Your task to perform on an android device: When is my next appointment? Image 0: 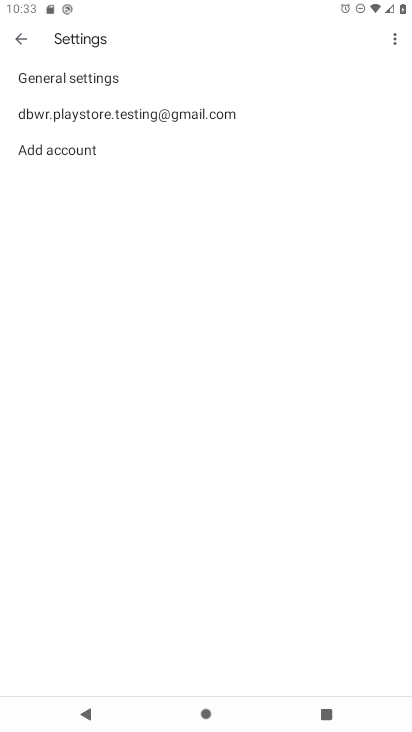
Step 0: press home button
Your task to perform on an android device: When is my next appointment? Image 1: 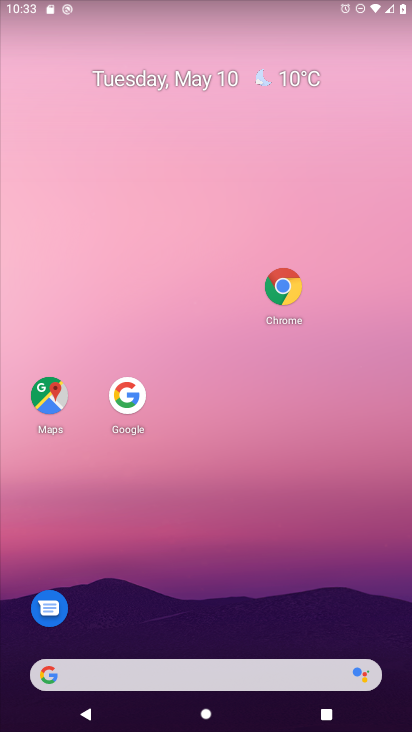
Step 1: drag from (183, 667) to (331, 81)
Your task to perform on an android device: When is my next appointment? Image 2: 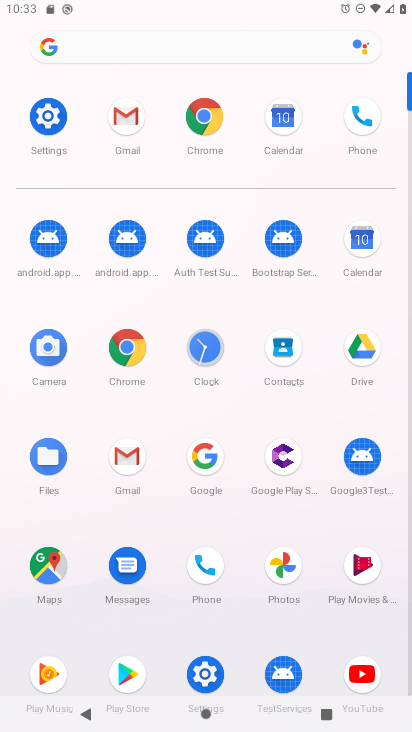
Step 2: click (359, 243)
Your task to perform on an android device: When is my next appointment? Image 3: 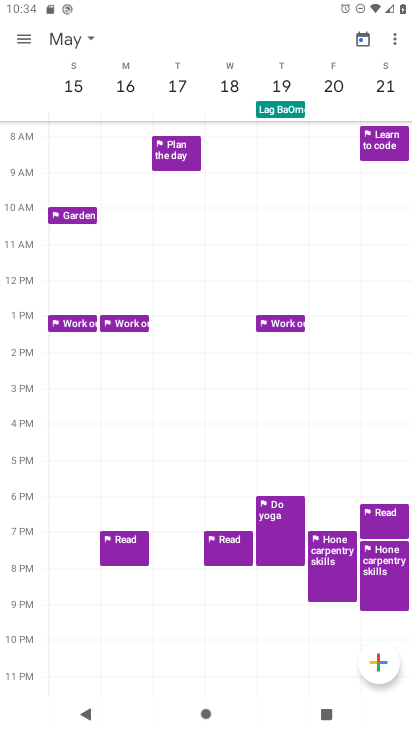
Step 3: click (57, 40)
Your task to perform on an android device: When is my next appointment? Image 4: 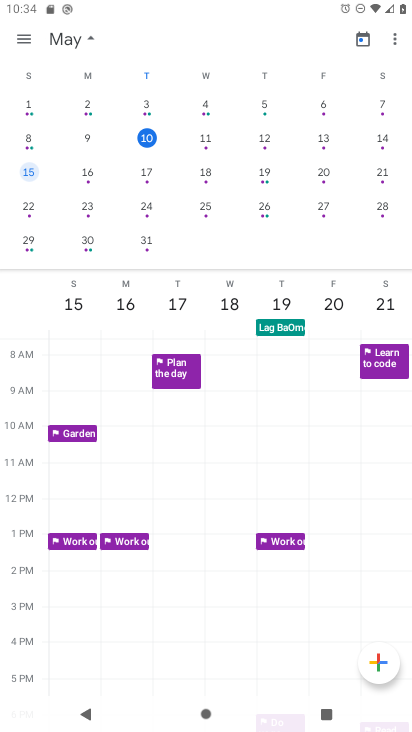
Step 4: click (153, 143)
Your task to perform on an android device: When is my next appointment? Image 5: 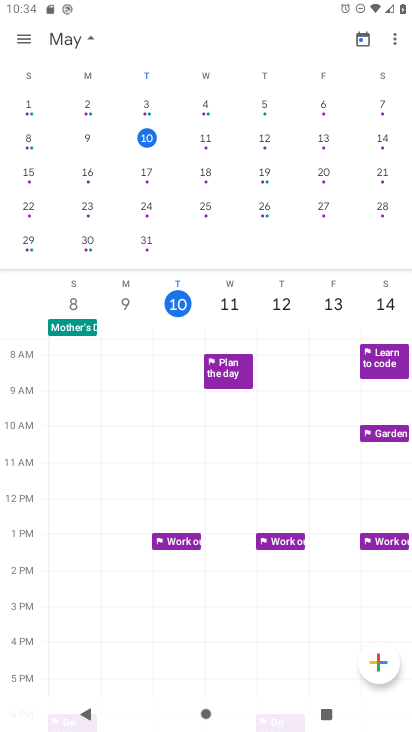
Step 5: click (25, 41)
Your task to perform on an android device: When is my next appointment? Image 6: 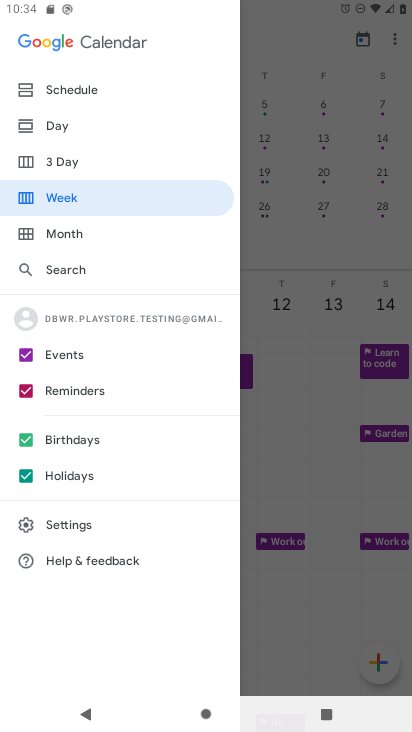
Step 6: click (87, 84)
Your task to perform on an android device: When is my next appointment? Image 7: 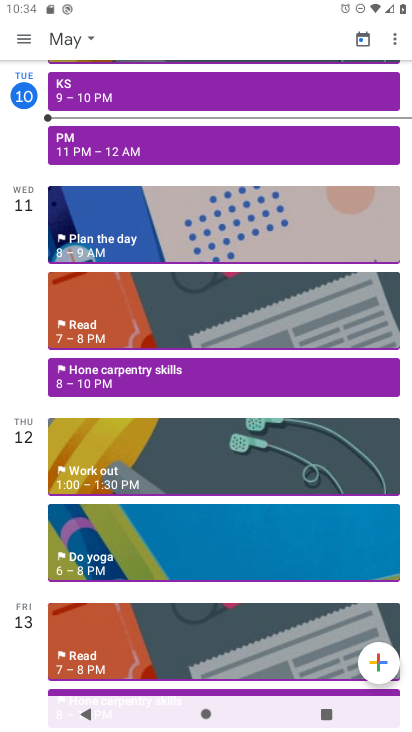
Step 7: click (124, 155)
Your task to perform on an android device: When is my next appointment? Image 8: 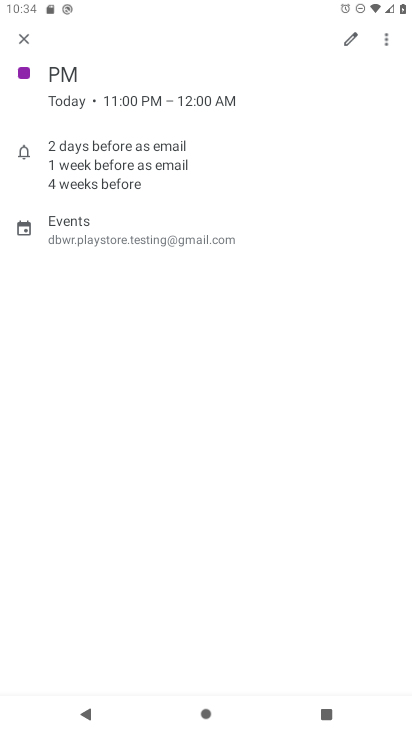
Step 8: task complete